Your task to perform on an android device: Do I have any events today? Image 0: 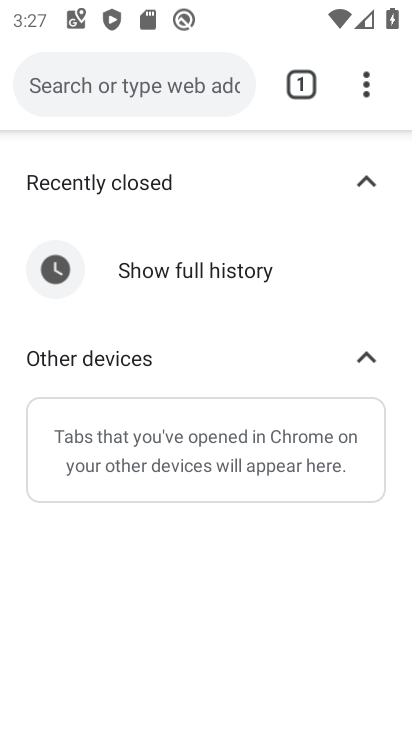
Step 0: press home button
Your task to perform on an android device: Do I have any events today? Image 1: 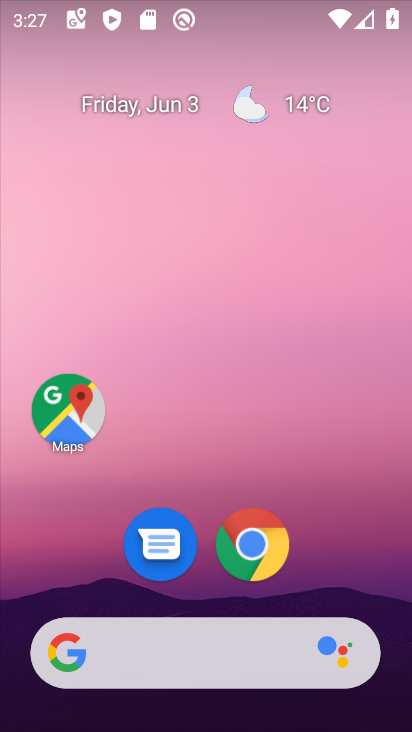
Step 1: drag from (399, 623) to (332, 155)
Your task to perform on an android device: Do I have any events today? Image 2: 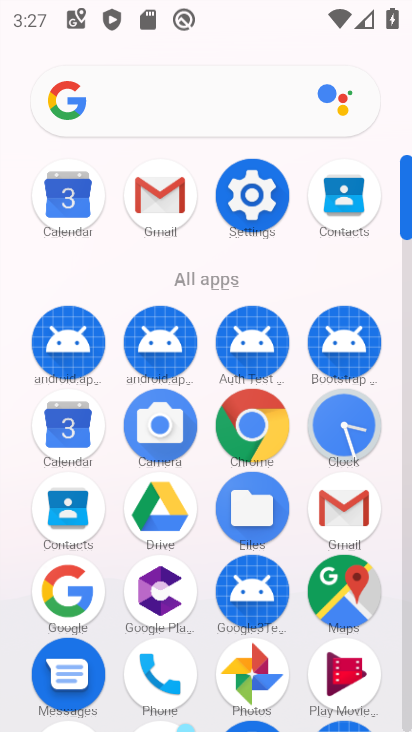
Step 2: click (404, 682)
Your task to perform on an android device: Do I have any events today? Image 3: 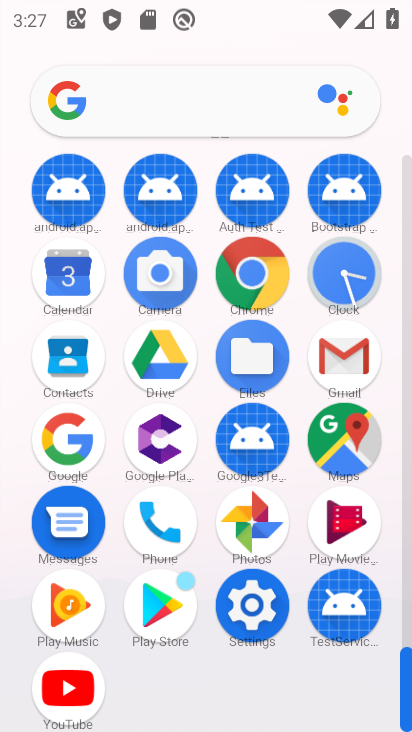
Step 3: click (68, 275)
Your task to perform on an android device: Do I have any events today? Image 4: 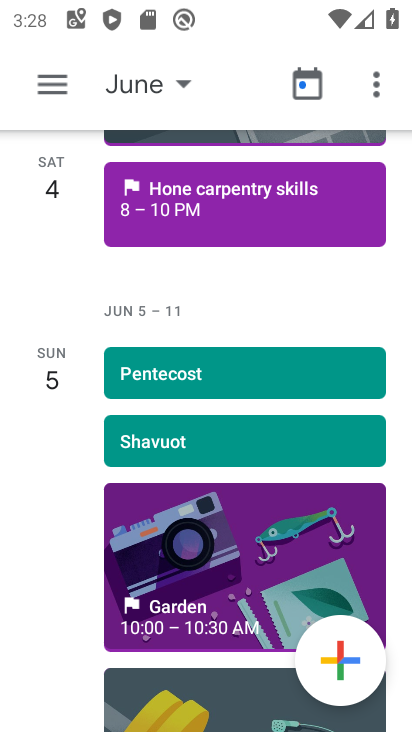
Step 4: click (45, 76)
Your task to perform on an android device: Do I have any events today? Image 5: 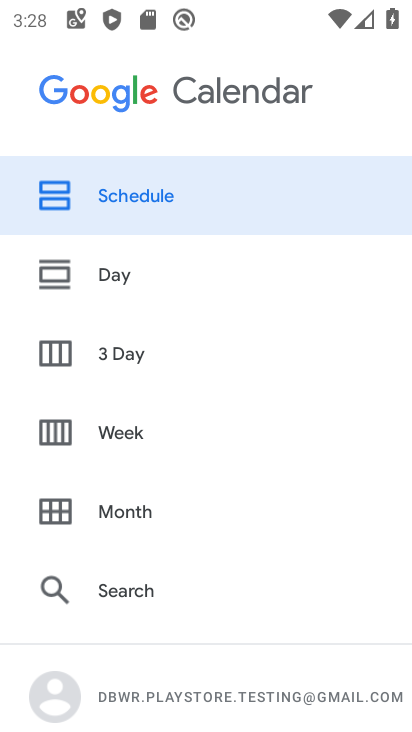
Step 5: click (112, 278)
Your task to perform on an android device: Do I have any events today? Image 6: 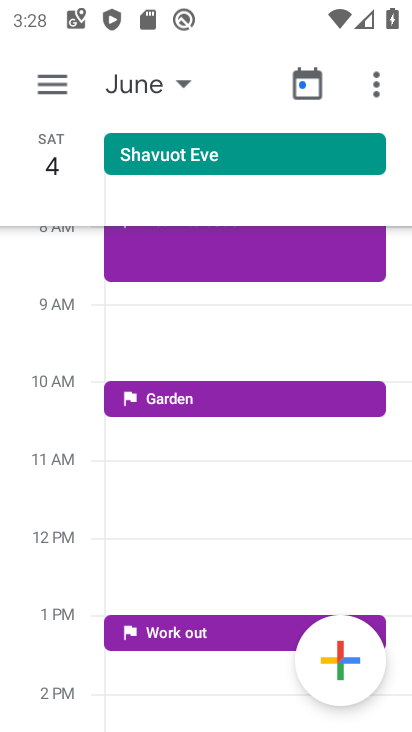
Step 6: click (176, 72)
Your task to perform on an android device: Do I have any events today? Image 7: 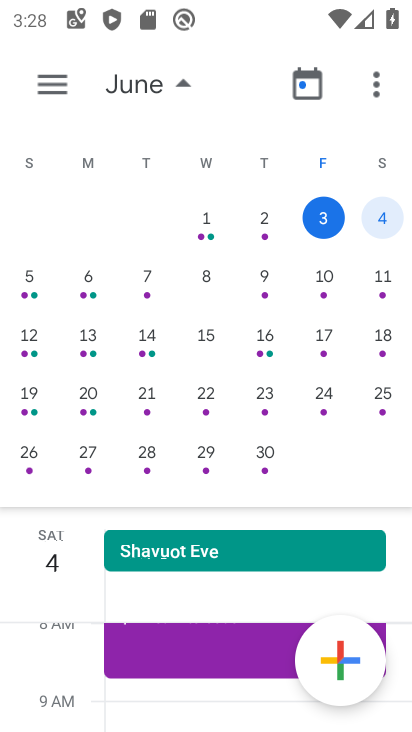
Step 7: click (330, 212)
Your task to perform on an android device: Do I have any events today? Image 8: 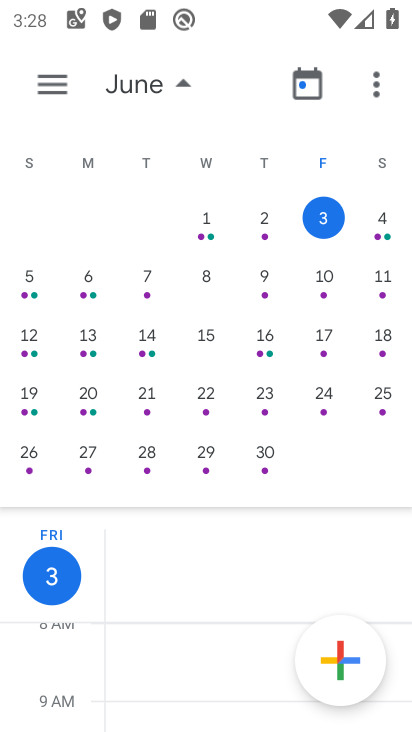
Step 8: task complete